Your task to perform on an android device: Search for vegetarian restaurants on Maps Image 0: 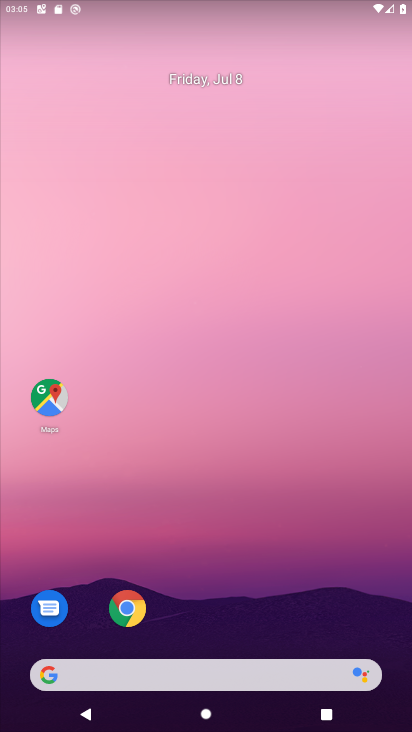
Step 0: drag from (253, 572) to (258, 144)
Your task to perform on an android device: Search for vegetarian restaurants on Maps Image 1: 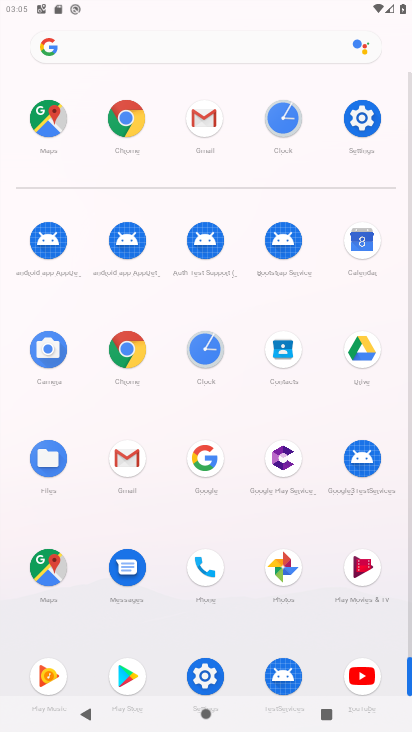
Step 1: click (45, 578)
Your task to perform on an android device: Search for vegetarian restaurants on Maps Image 2: 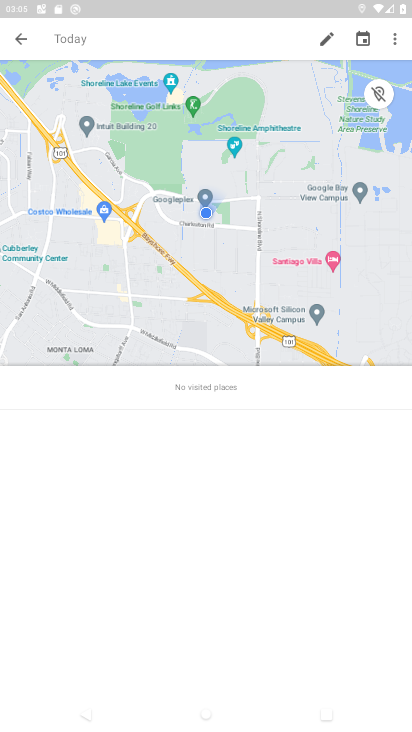
Step 2: click (26, 35)
Your task to perform on an android device: Search for vegetarian restaurants on Maps Image 3: 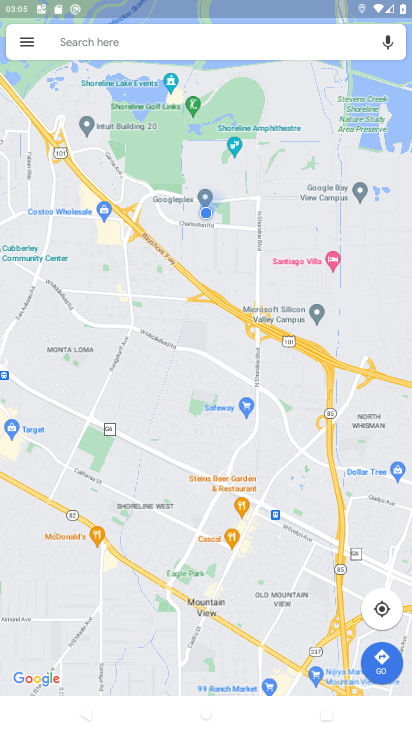
Step 3: click (163, 29)
Your task to perform on an android device: Search for vegetarian restaurants on Maps Image 4: 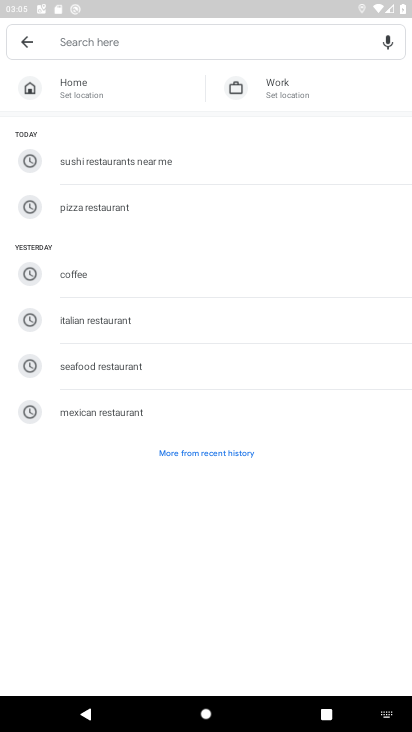
Step 4: click (198, 42)
Your task to perform on an android device: Search for vegetarian restaurants on Maps Image 5: 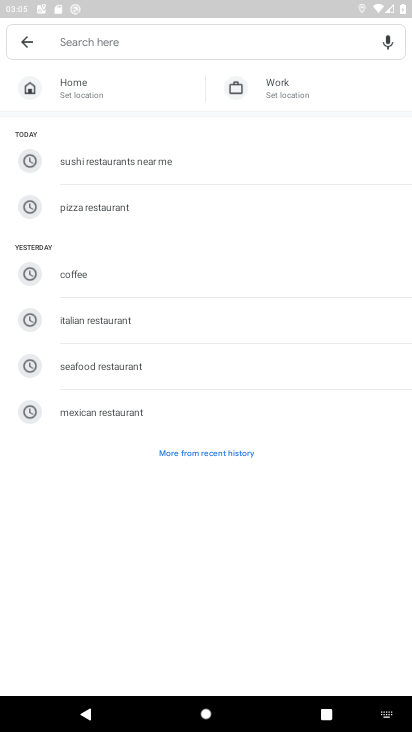
Step 5: type "vegetarian restaurant "
Your task to perform on an android device: Search for vegetarian restaurants on Maps Image 6: 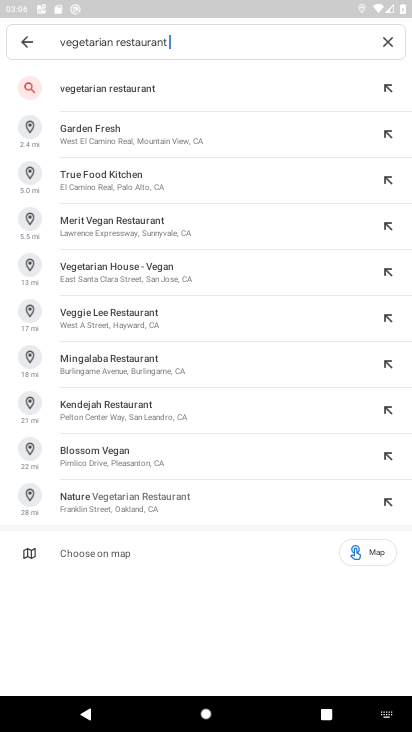
Step 6: click (156, 82)
Your task to perform on an android device: Search for vegetarian restaurants on Maps Image 7: 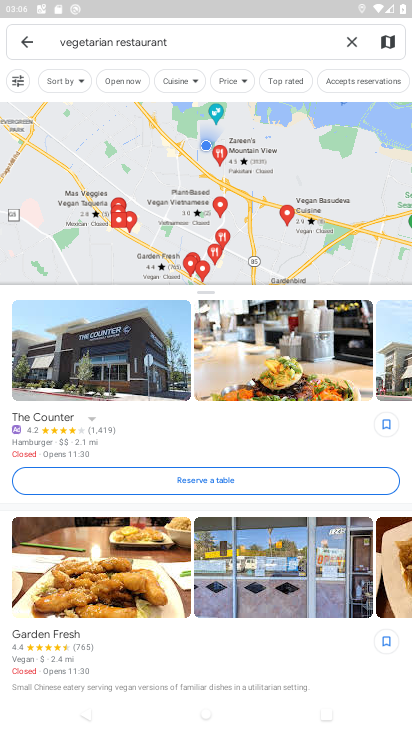
Step 7: task complete